Your task to perform on an android device: Open privacy settings Image 0: 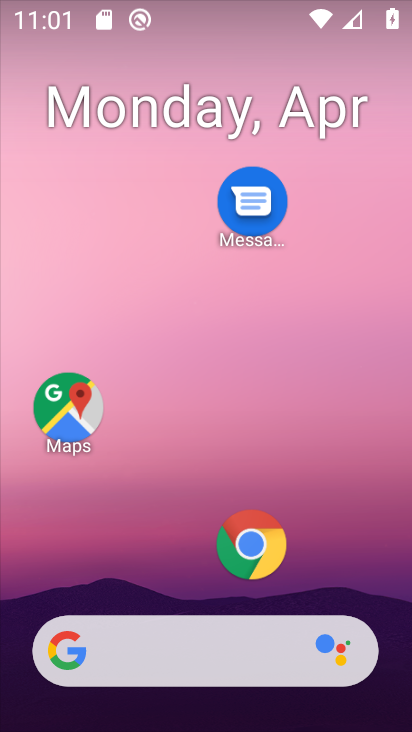
Step 0: drag from (202, 580) to (227, 101)
Your task to perform on an android device: Open privacy settings Image 1: 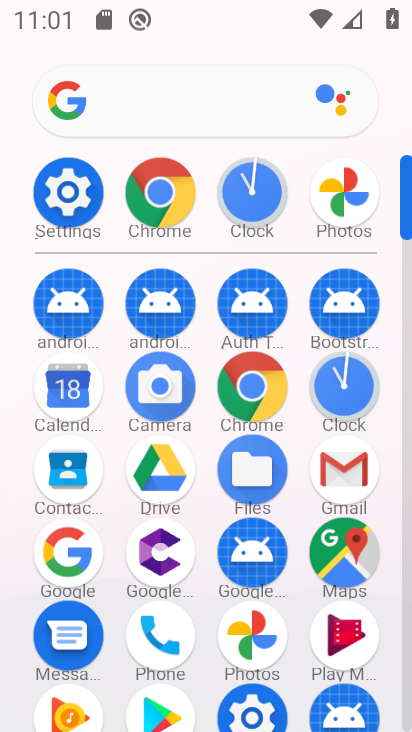
Step 1: click (65, 186)
Your task to perform on an android device: Open privacy settings Image 2: 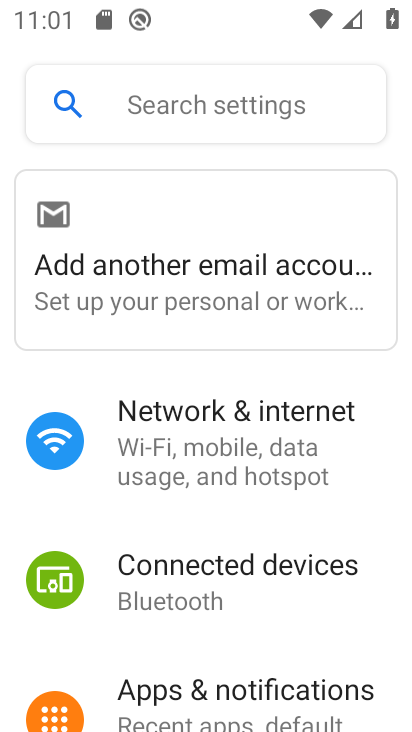
Step 2: drag from (214, 618) to (254, 80)
Your task to perform on an android device: Open privacy settings Image 3: 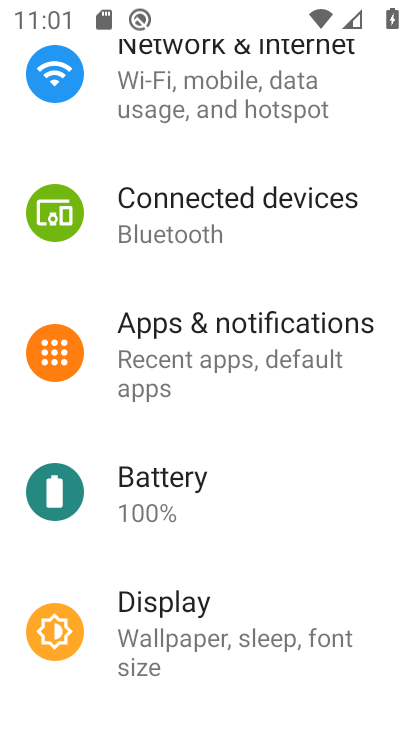
Step 3: drag from (198, 684) to (249, 157)
Your task to perform on an android device: Open privacy settings Image 4: 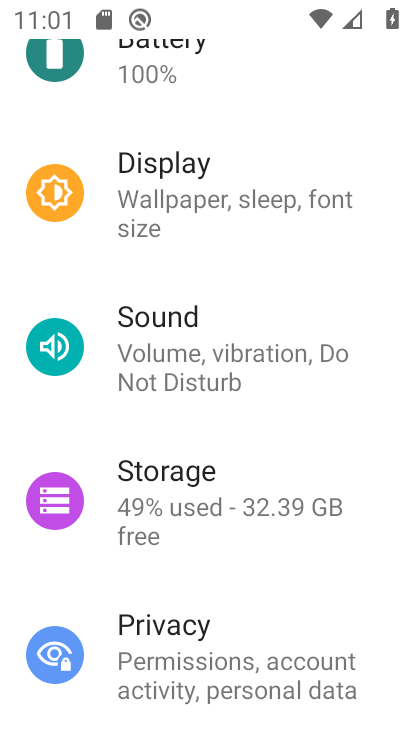
Step 4: click (223, 641)
Your task to perform on an android device: Open privacy settings Image 5: 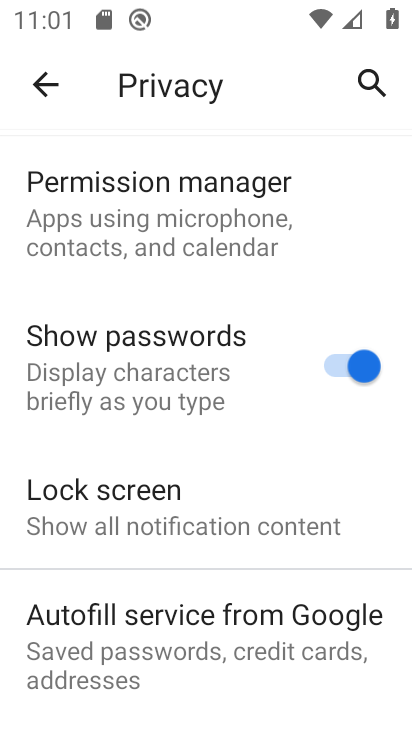
Step 5: drag from (214, 675) to (252, 283)
Your task to perform on an android device: Open privacy settings Image 6: 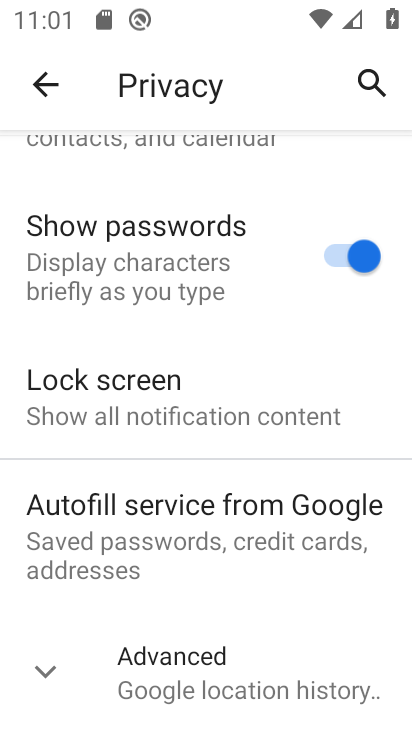
Step 6: click (47, 665)
Your task to perform on an android device: Open privacy settings Image 7: 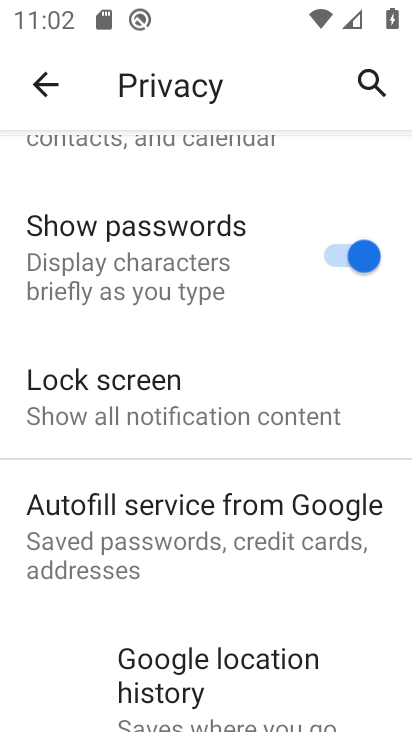
Step 7: task complete